Your task to perform on an android device: manage bookmarks in the chrome app Image 0: 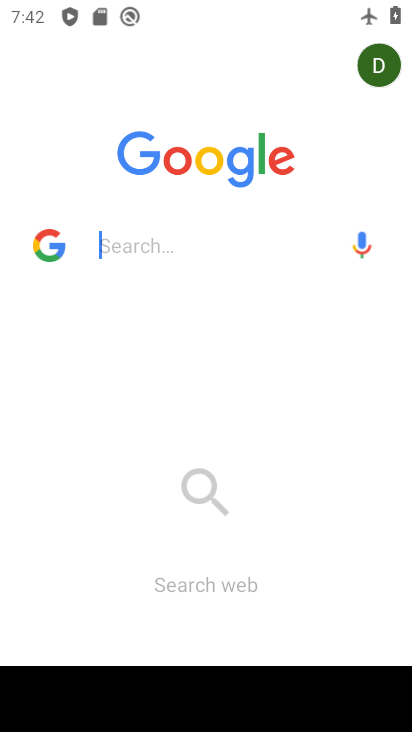
Step 0: press home button
Your task to perform on an android device: manage bookmarks in the chrome app Image 1: 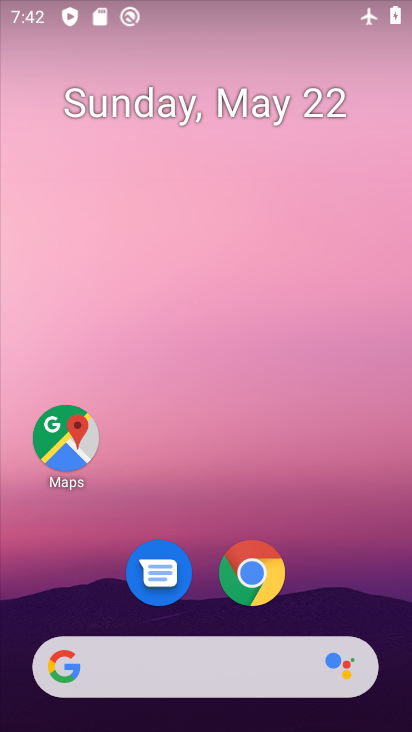
Step 1: drag from (335, 577) to (333, 143)
Your task to perform on an android device: manage bookmarks in the chrome app Image 2: 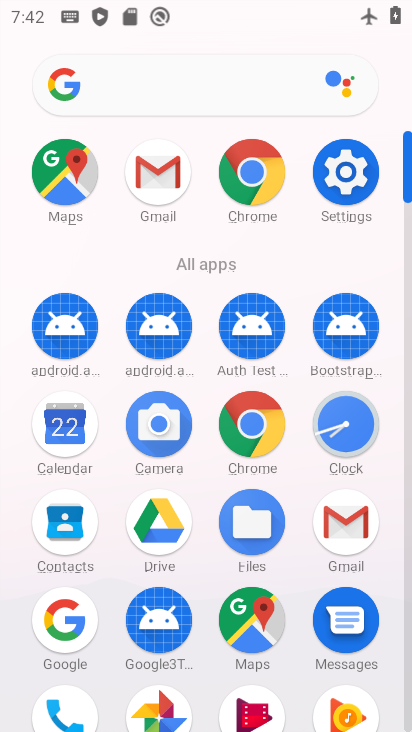
Step 2: click (251, 444)
Your task to perform on an android device: manage bookmarks in the chrome app Image 3: 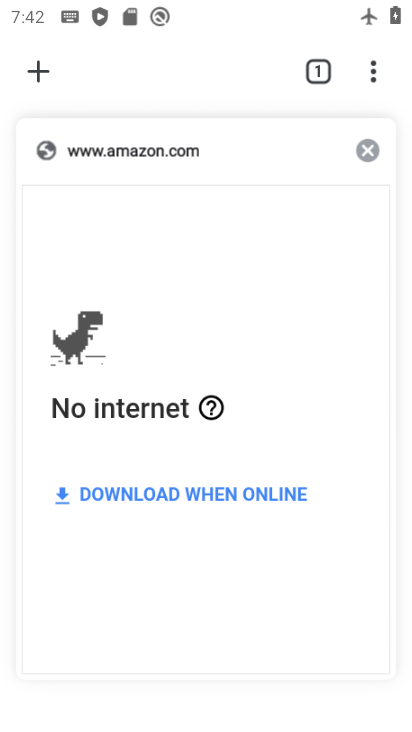
Step 3: click (261, 148)
Your task to perform on an android device: manage bookmarks in the chrome app Image 4: 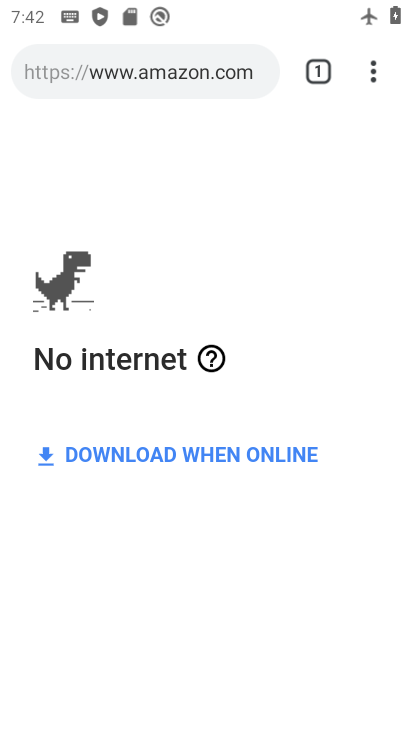
Step 4: task complete